Your task to perform on an android device: make emails show in primary in the gmail app Image 0: 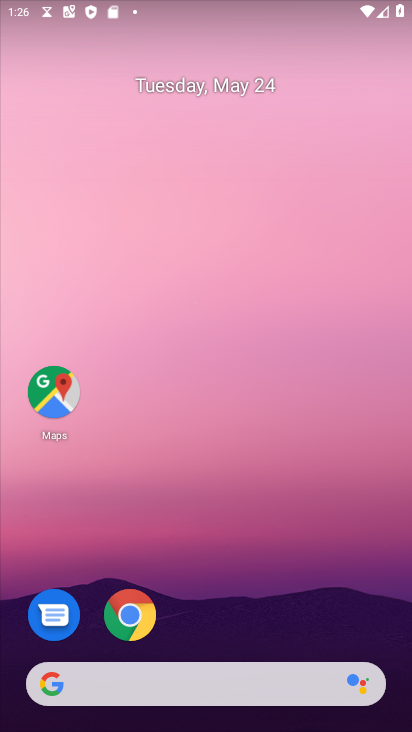
Step 0: press home button
Your task to perform on an android device: make emails show in primary in the gmail app Image 1: 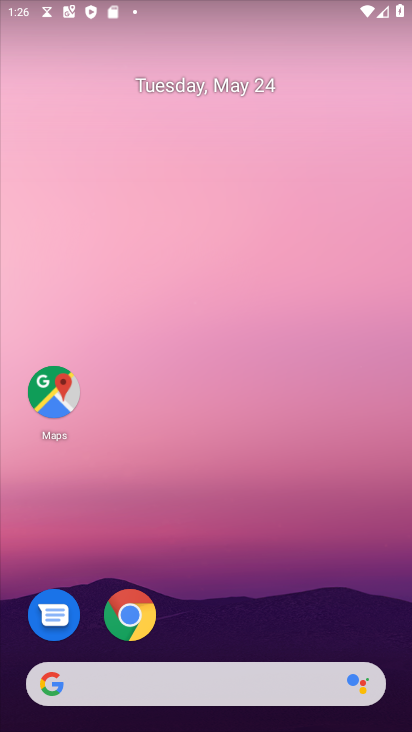
Step 1: drag from (225, 641) to (240, 48)
Your task to perform on an android device: make emails show in primary in the gmail app Image 2: 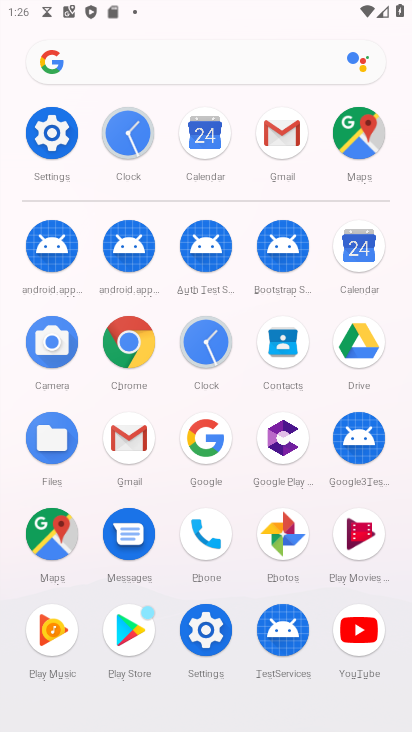
Step 2: click (276, 119)
Your task to perform on an android device: make emails show in primary in the gmail app Image 3: 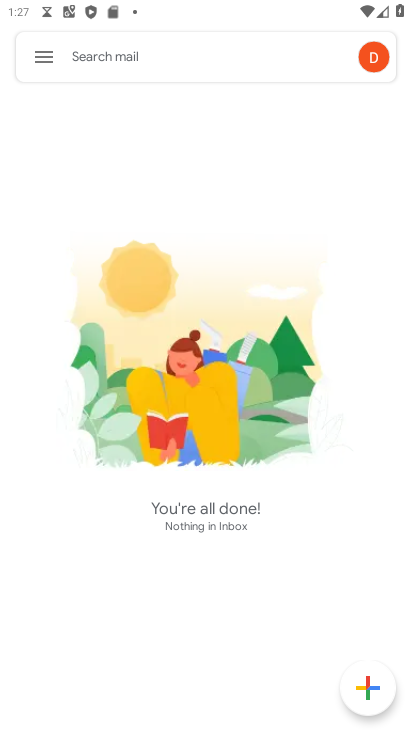
Step 3: click (42, 50)
Your task to perform on an android device: make emails show in primary in the gmail app Image 4: 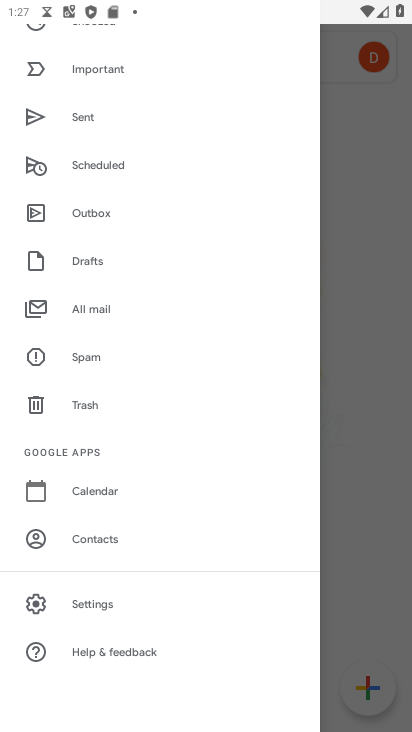
Step 4: click (116, 600)
Your task to perform on an android device: make emails show in primary in the gmail app Image 5: 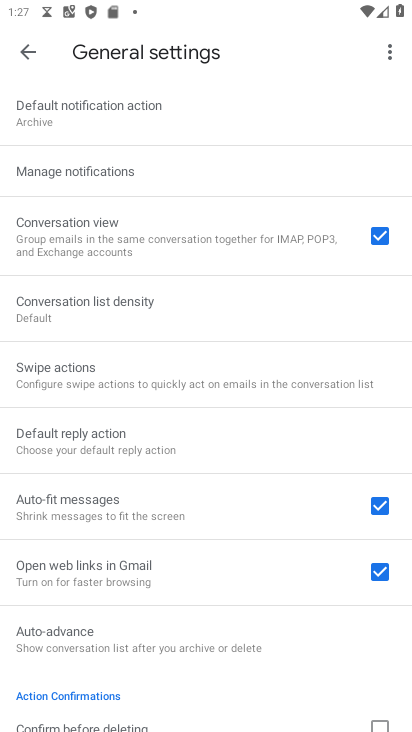
Step 5: click (32, 50)
Your task to perform on an android device: make emails show in primary in the gmail app Image 6: 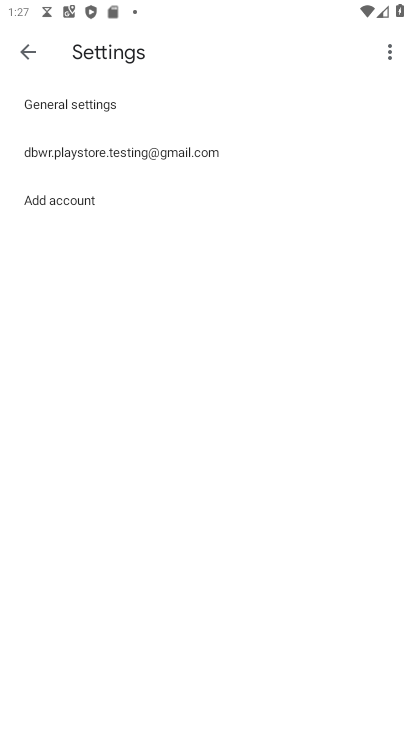
Step 6: click (167, 147)
Your task to perform on an android device: make emails show in primary in the gmail app Image 7: 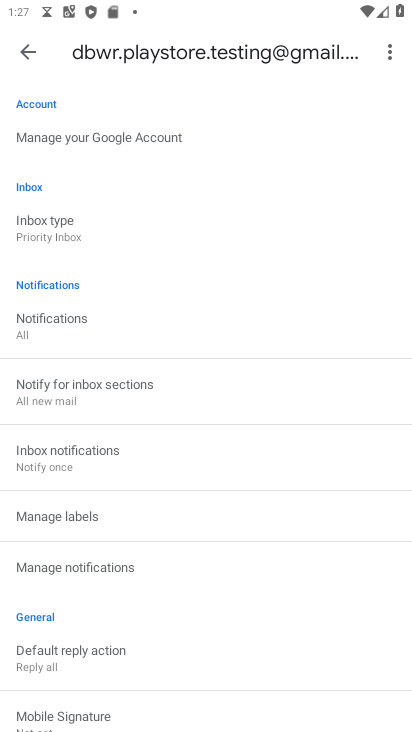
Step 7: click (98, 227)
Your task to perform on an android device: make emails show in primary in the gmail app Image 8: 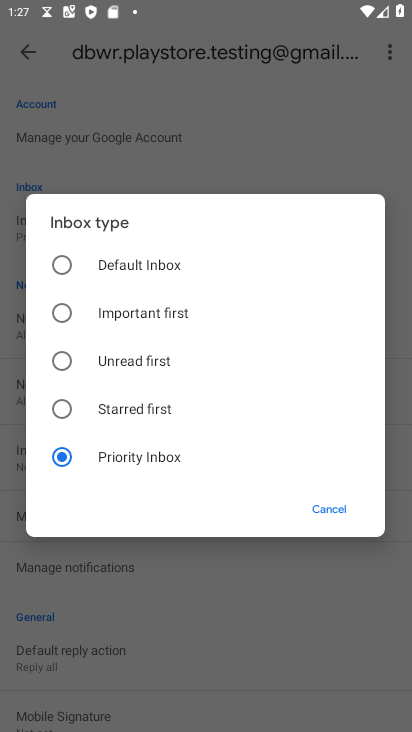
Step 8: click (58, 258)
Your task to perform on an android device: make emails show in primary in the gmail app Image 9: 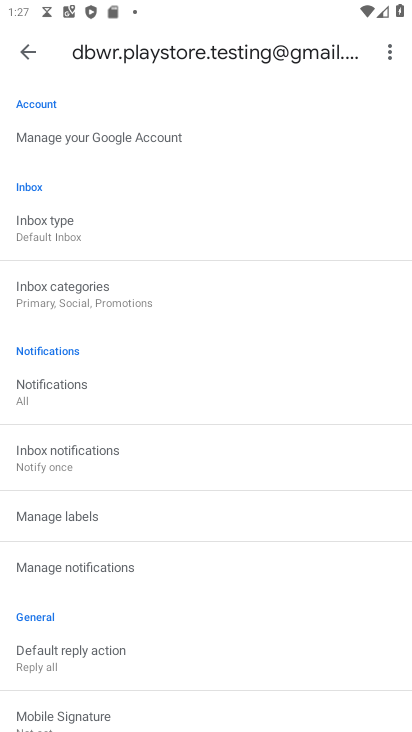
Step 9: task complete